Your task to perform on an android device: check battery use Image 0: 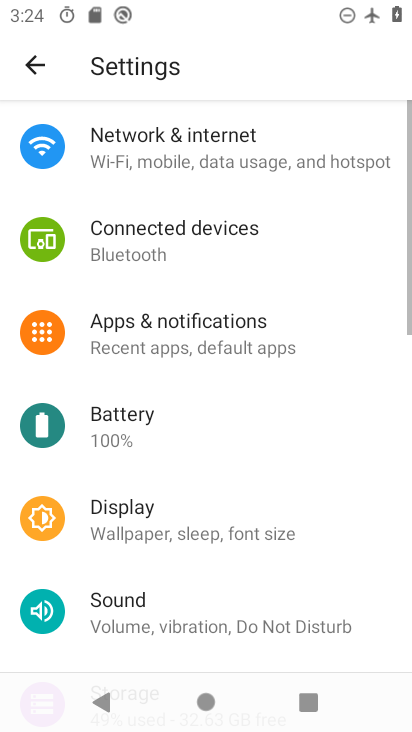
Step 0: click (163, 433)
Your task to perform on an android device: check battery use Image 1: 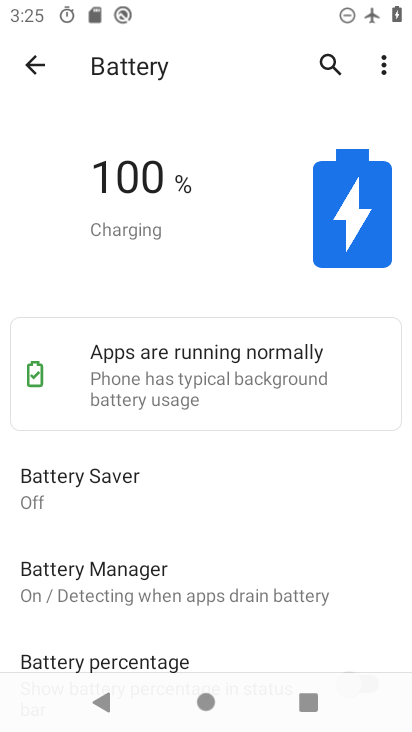
Step 1: task complete